Your task to perform on an android device: change alarm snooze length Image 0: 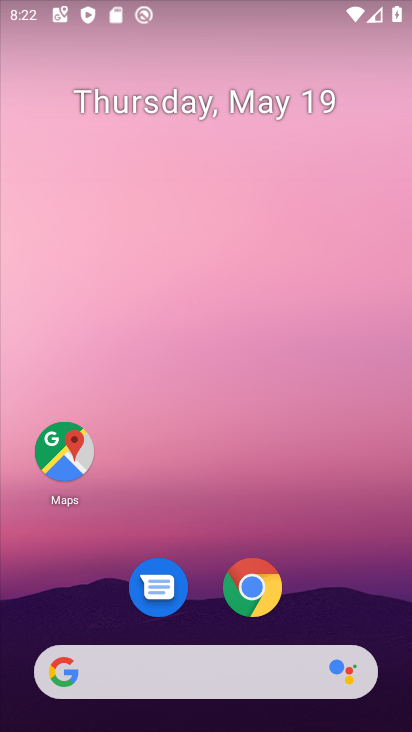
Step 0: drag from (309, 518) to (251, 34)
Your task to perform on an android device: change alarm snooze length Image 1: 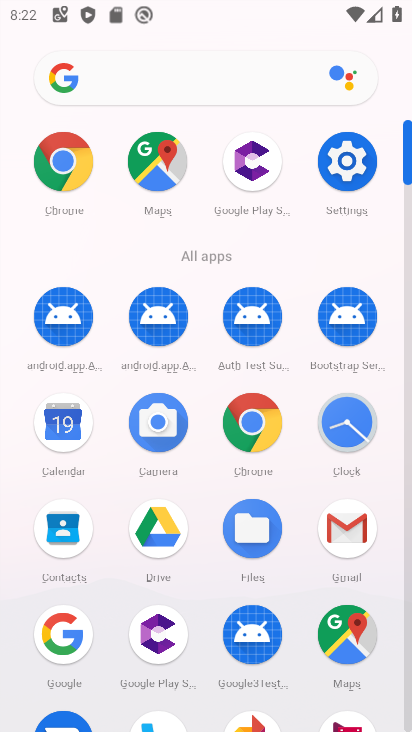
Step 1: click (348, 422)
Your task to perform on an android device: change alarm snooze length Image 2: 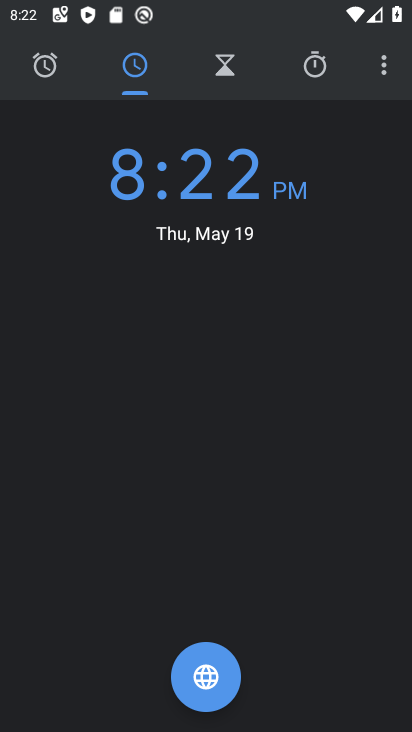
Step 2: drag from (383, 67) to (323, 105)
Your task to perform on an android device: change alarm snooze length Image 3: 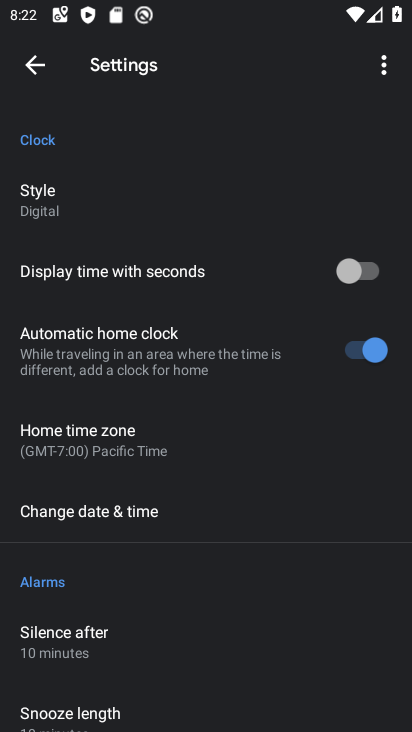
Step 3: drag from (231, 566) to (250, 180)
Your task to perform on an android device: change alarm snooze length Image 4: 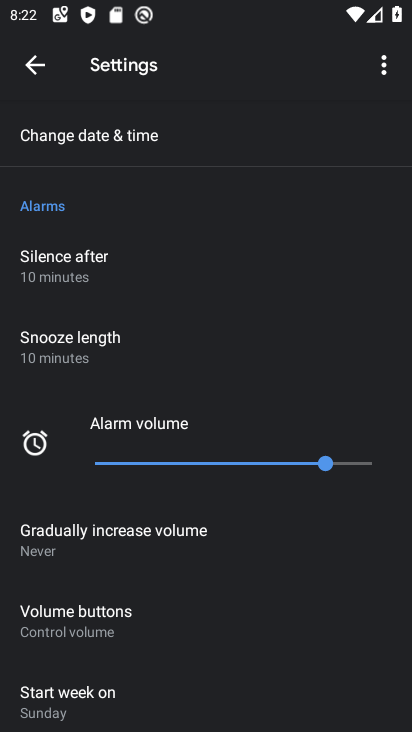
Step 4: click (142, 342)
Your task to perform on an android device: change alarm snooze length Image 5: 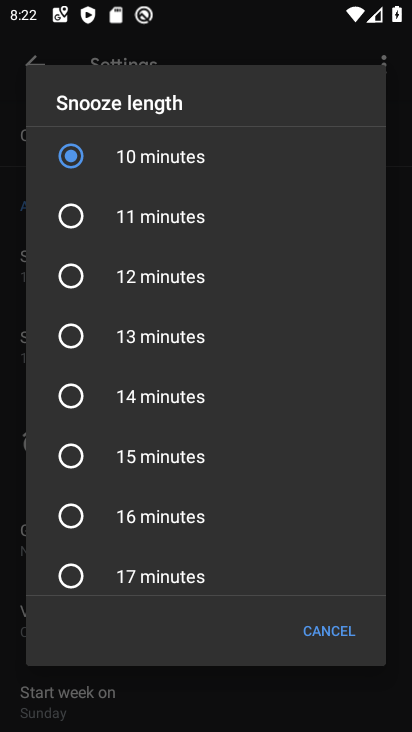
Step 5: click (144, 204)
Your task to perform on an android device: change alarm snooze length Image 6: 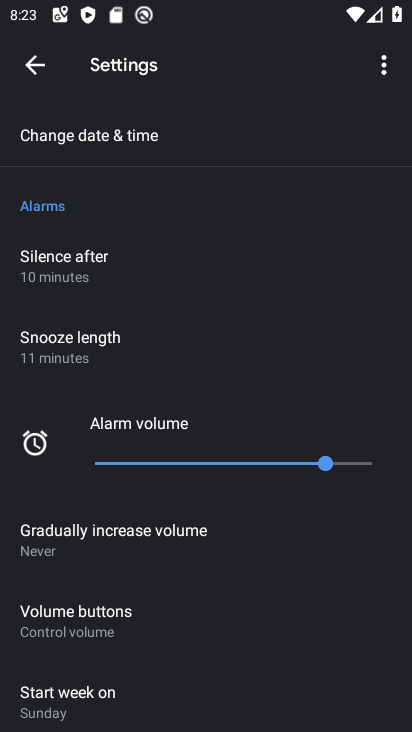
Step 6: task complete